Your task to perform on an android device: check out phone information Image 0: 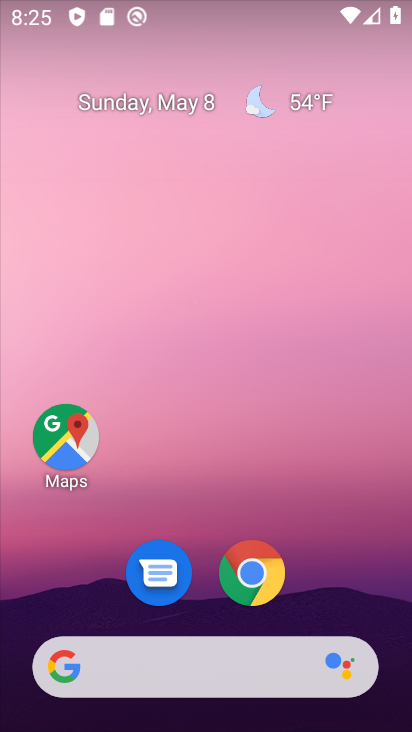
Step 0: drag from (218, 719) to (202, 211)
Your task to perform on an android device: check out phone information Image 1: 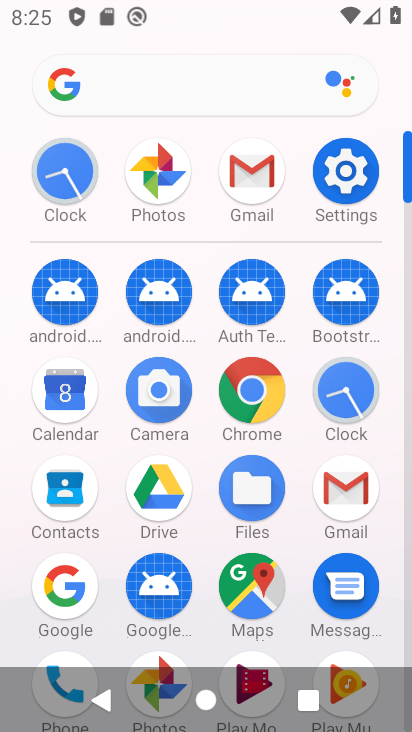
Step 1: click (352, 169)
Your task to perform on an android device: check out phone information Image 2: 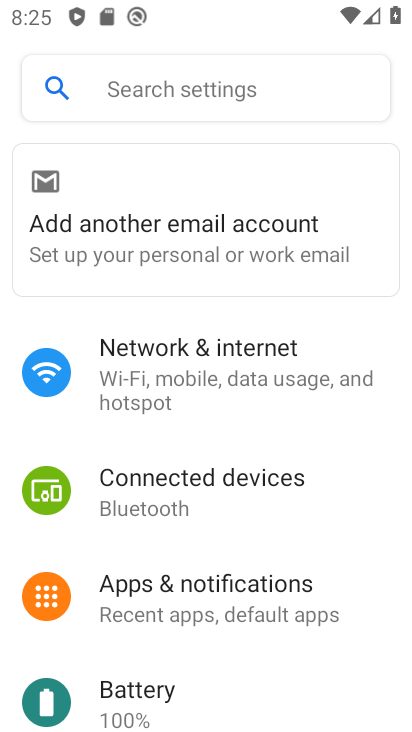
Step 2: drag from (174, 676) to (194, 299)
Your task to perform on an android device: check out phone information Image 3: 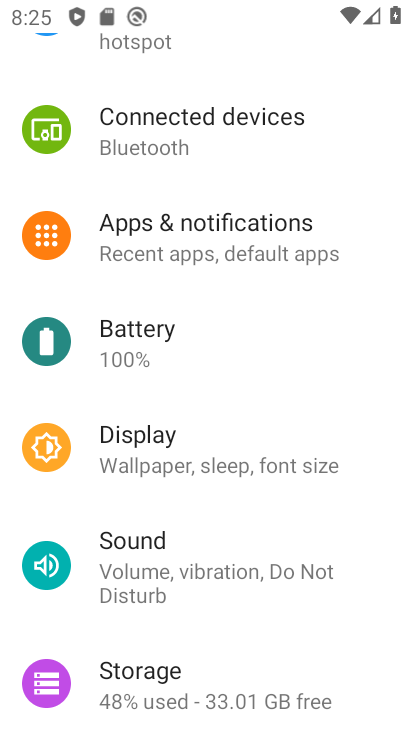
Step 3: drag from (249, 662) to (224, 248)
Your task to perform on an android device: check out phone information Image 4: 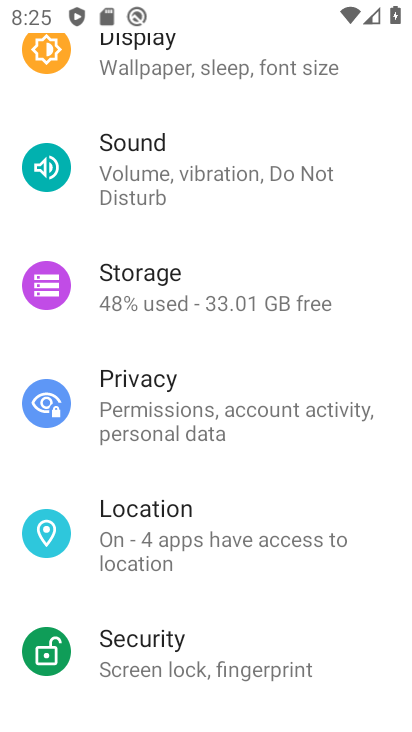
Step 4: drag from (240, 638) to (209, 253)
Your task to perform on an android device: check out phone information Image 5: 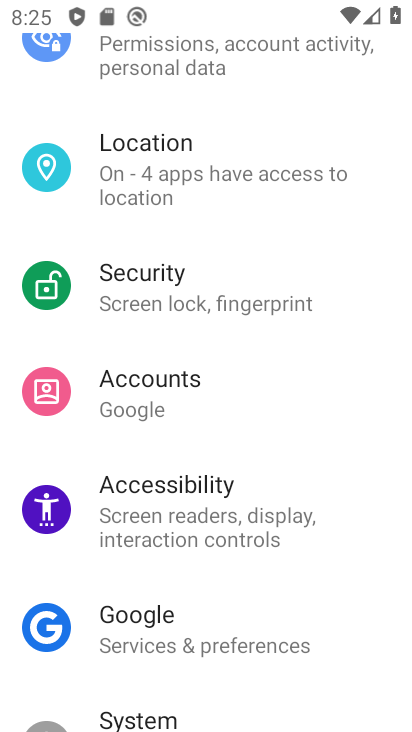
Step 5: drag from (250, 686) to (208, 200)
Your task to perform on an android device: check out phone information Image 6: 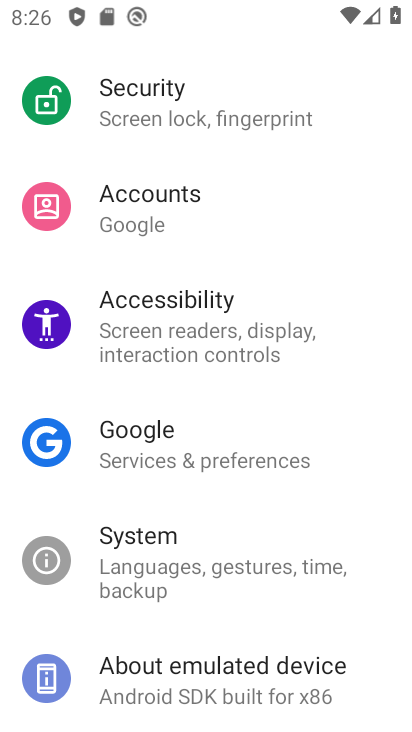
Step 6: click (176, 670)
Your task to perform on an android device: check out phone information Image 7: 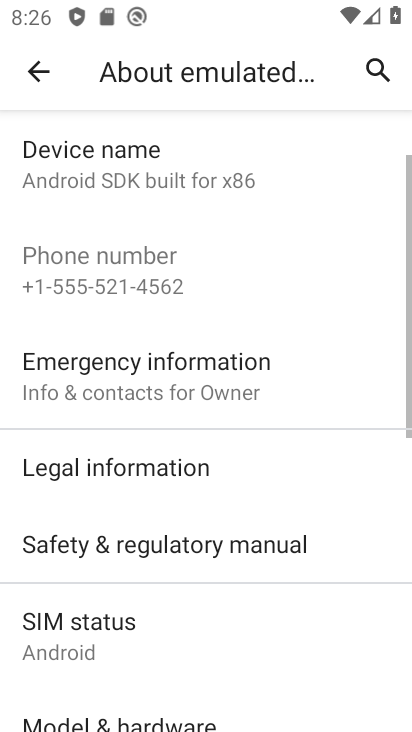
Step 7: task complete